Your task to perform on an android device: open the mobile data screen to see how much data has been used Image 0: 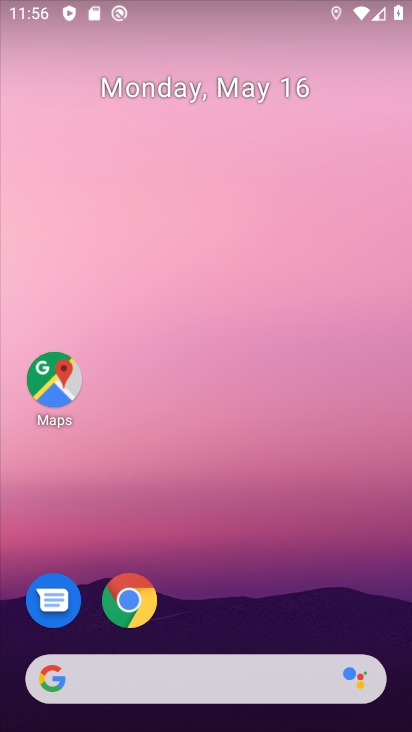
Step 0: drag from (229, 627) to (224, 153)
Your task to perform on an android device: open the mobile data screen to see how much data has been used Image 1: 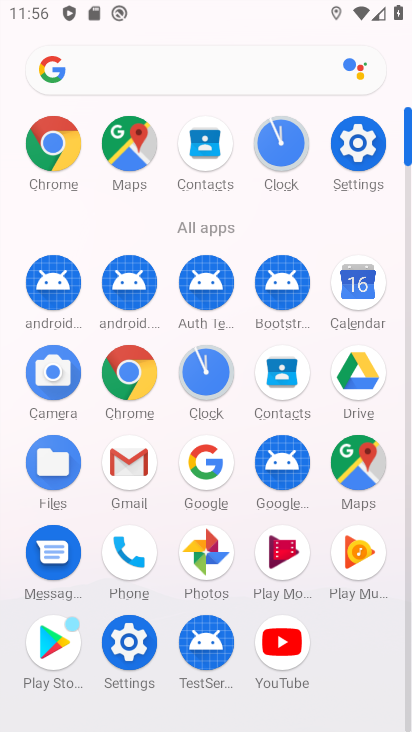
Step 1: click (358, 156)
Your task to perform on an android device: open the mobile data screen to see how much data has been used Image 2: 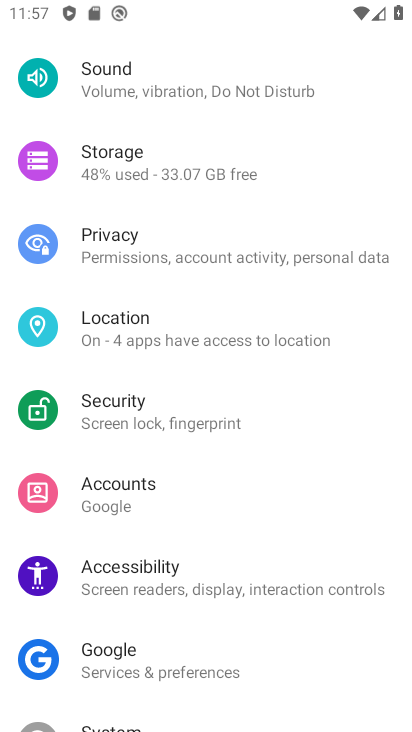
Step 2: drag from (235, 134) to (183, 699)
Your task to perform on an android device: open the mobile data screen to see how much data has been used Image 3: 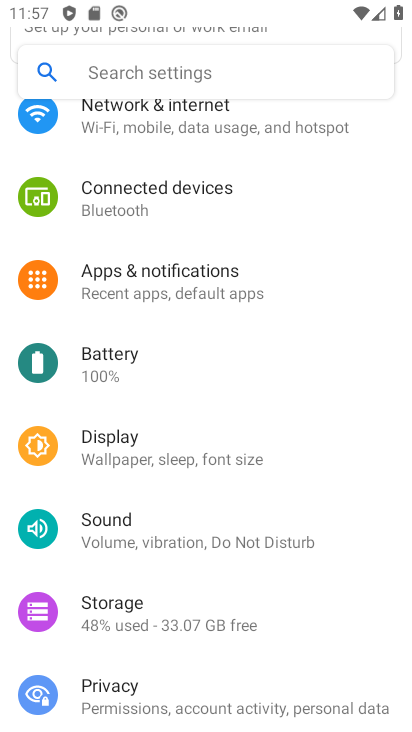
Step 3: click (208, 130)
Your task to perform on an android device: open the mobile data screen to see how much data has been used Image 4: 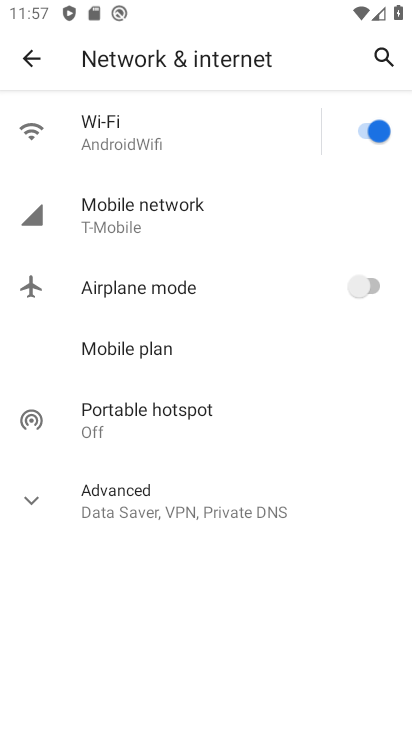
Step 4: click (218, 202)
Your task to perform on an android device: open the mobile data screen to see how much data has been used Image 5: 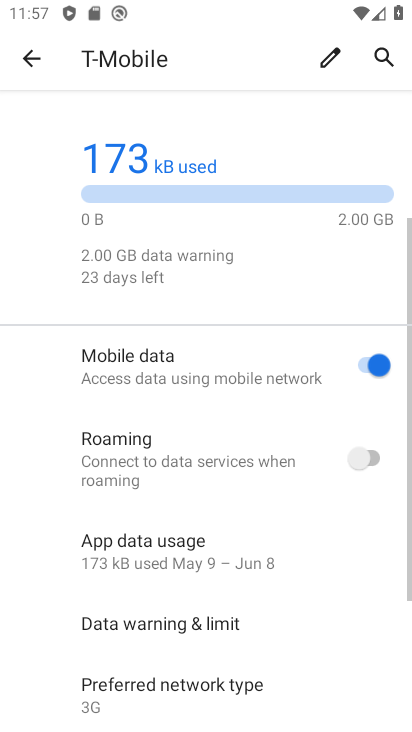
Step 5: task complete